Your task to perform on an android device: Empty the shopping cart on ebay.com. Add jbl charge 4 to the cart on ebay.com, then select checkout. Image 0: 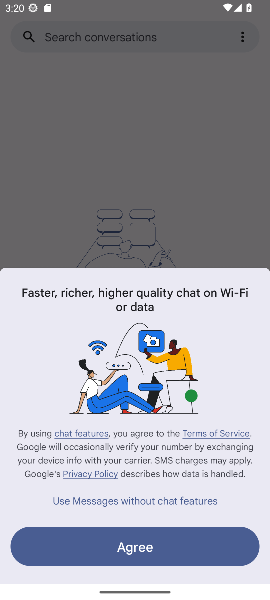
Step 0: press home button
Your task to perform on an android device: Empty the shopping cart on ebay.com. Add jbl charge 4 to the cart on ebay.com, then select checkout. Image 1: 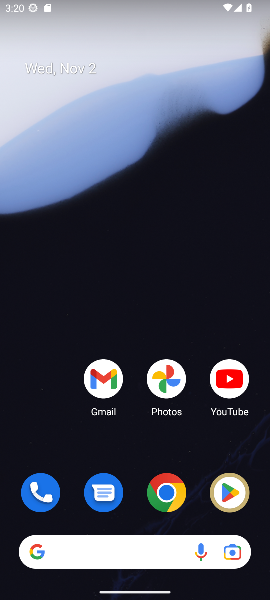
Step 1: click (165, 497)
Your task to perform on an android device: Empty the shopping cart on ebay.com. Add jbl charge 4 to the cart on ebay.com, then select checkout. Image 2: 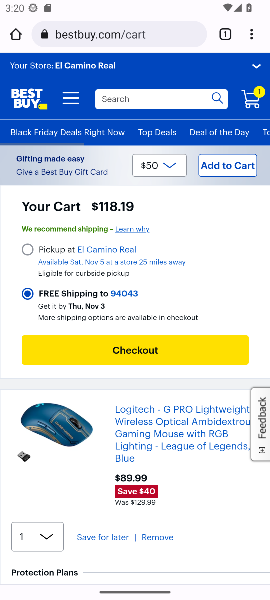
Step 2: click (146, 22)
Your task to perform on an android device: Empty the shopping cart on ebay.com. Add jbl charge 4 to the cart on ebay.com, then select checkout. Image 3: 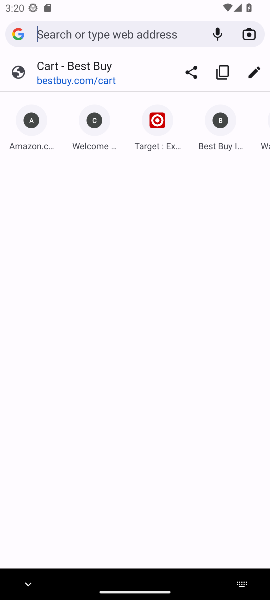
Step 3: type "ebay.com"
Your task to perform on an android device: Empty the shopping cart on ebay.com. Add jbl charge 4 to the cart on ebay.com, then select checkout. Image 4: 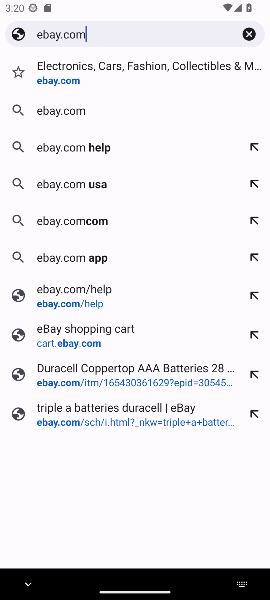
Step 4: click (49, 66)
Your task to perform on an android device: Empty the shopping cart on ebay.com. Add jbl charge 4 to the cart on ebay.com, then select checkout. Image 5: 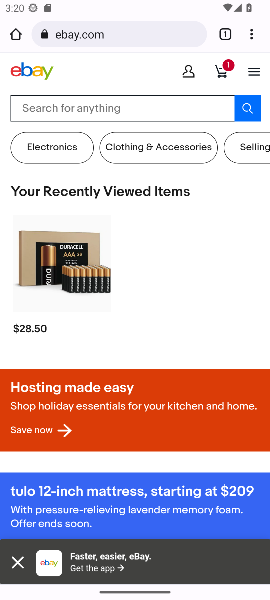
Step 5: click (222, 69)
Your task to perform on an android device: Empty the shopping cart on ebay.com. Add jbl charge 4 to the cart on ebay.com, then select checkout. Image 6: 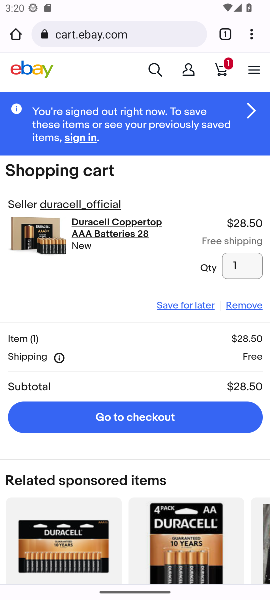
Step 6: click (244, 303)
Your task to perform on an android device: Empty the shopping cart on ebay.com. Add jbl charge 4 to the cart on ebay.com, then select checkout. Image 7: 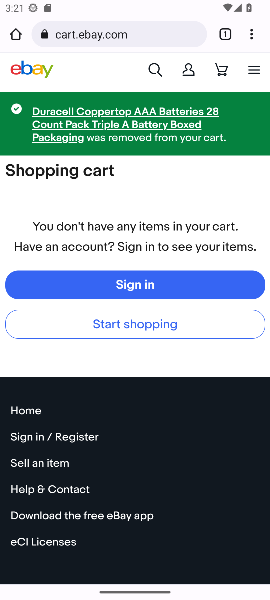
Step 7: click (155, 69)
Your task to perform on an android device: Empty the shopping cart on ebay.com. Add jbl charge 4 to the cart on ebay.com, then select checkout. Image 8: 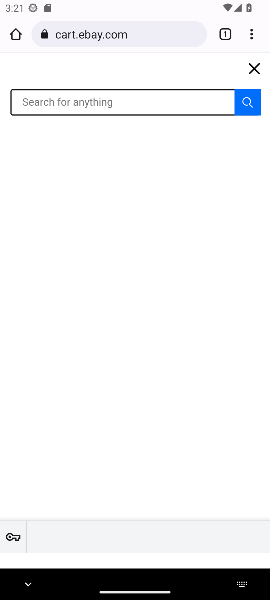
Step 8: type "jbl charge 4"
Your task to perform on an android device: Empty the shopping cart on ebay.com. Add jbl charge 4 to the cart on ebay.com, then select checkout. Image 9: 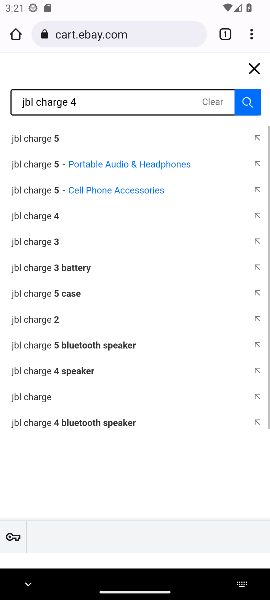
Step 9: click (43, 216)
Your task to perform on an android device: Empty the shopping cart on ebay.com. Add jbl charge 4 to the cart on ebay.com, then select checkout. Image 10: 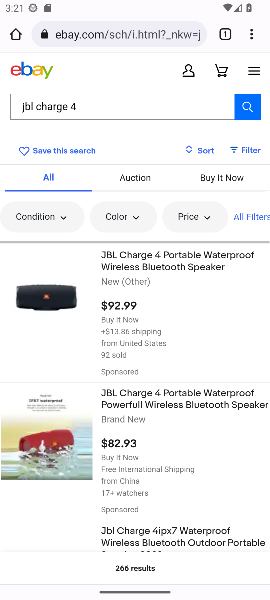
Step 10: click (128, 270)
Your task to perform on an android device: Empty the shopping cart on ebay.com. Add jbl charge 4 to the cart on ebay.com, then select checkout. Image 11: 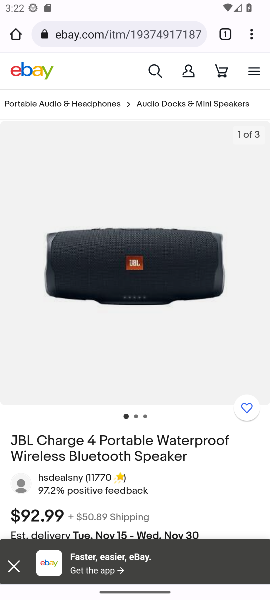
Step 11: drag from (117, 477) to (115, 123)
Your task to perform on an android device: Empty the shopping cart on ebay.com. Add jbl charge 4 to the cart on ebay.com, then select checkout. Image 12: 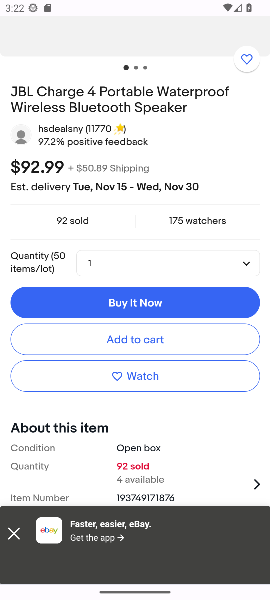
Step 12: click (128, 340)
Your task to perform on an android device: Empty the shopping cart on ebay.com. Add jbl charge 4 to the cart on ebay.com, then select checkout. Image 13: 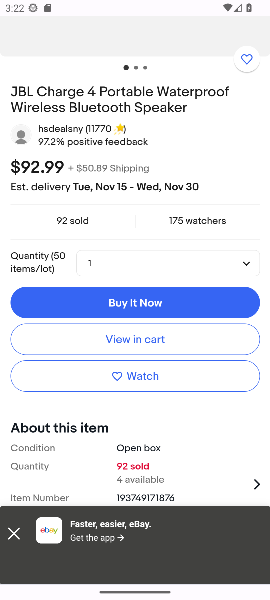
Step 13: click (140, 339)
Your task to perform on an android device: Empty the shopping cart on ebay.com. Add jbl charge 4 to the cart on ebay.com, then select checkout. Image 14: 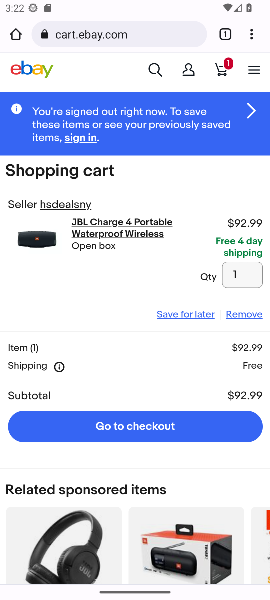
Step 14: click (123, 427)
Your task to perform on an android device: Empty the shopping cart on ebay.com. Add jbl charge 4 to the cart on ebay.com, then select checkout. Image 15: 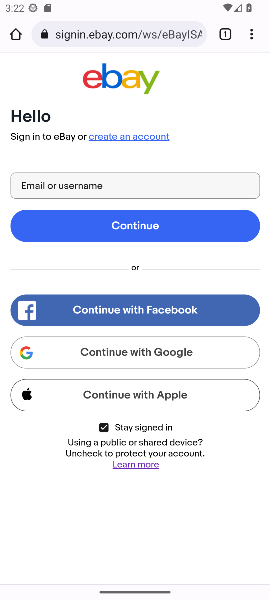
Step 15: task complete